Your task to perform on an android device: Search for seafood restaurants on Google Maps Image 0: 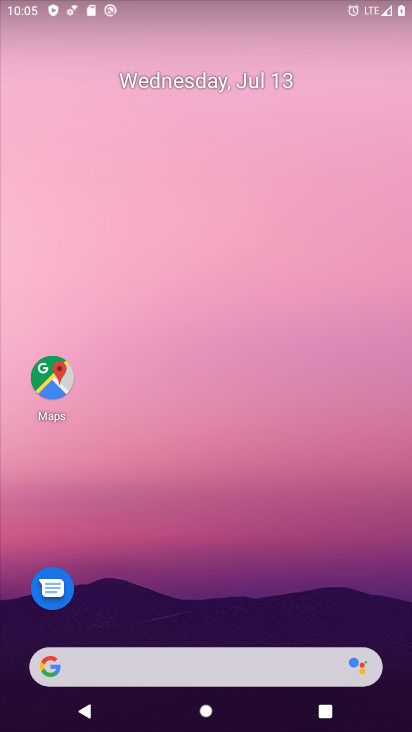
Step 0: drag from (140, 702) to (139, 22)
Your task to perform on an android device: Search for seafood restaurants on Google Maps Image 1: 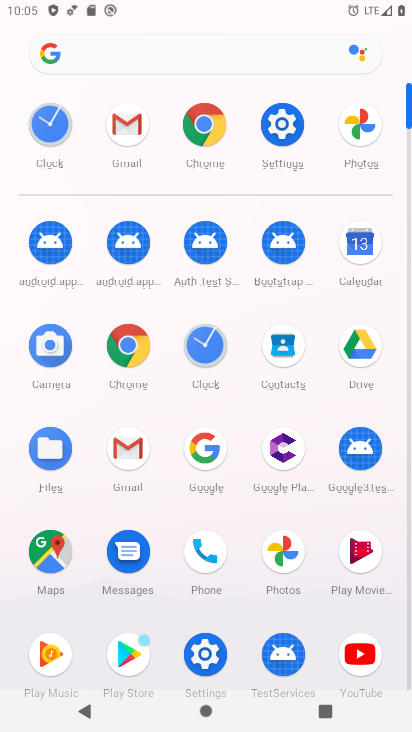
Step 1: click (52, 556)
Your task to perform on an android device: Search for seafood restaurants on Google Maps Image 2: 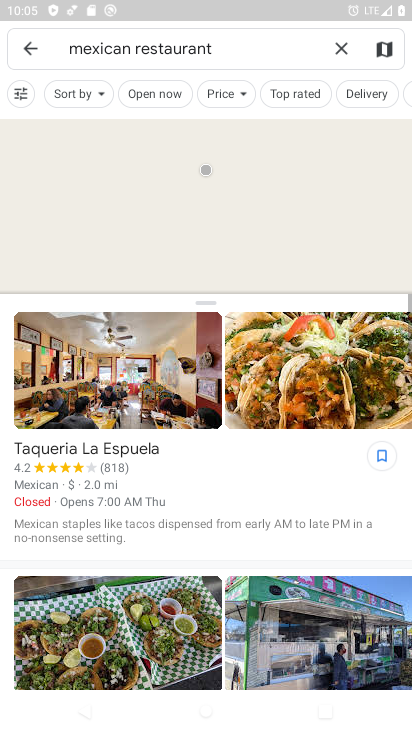
Step 2: click (345, 48)
Your task to perform on an android device: Search for seafood restaurants on Google Maps Image 3: 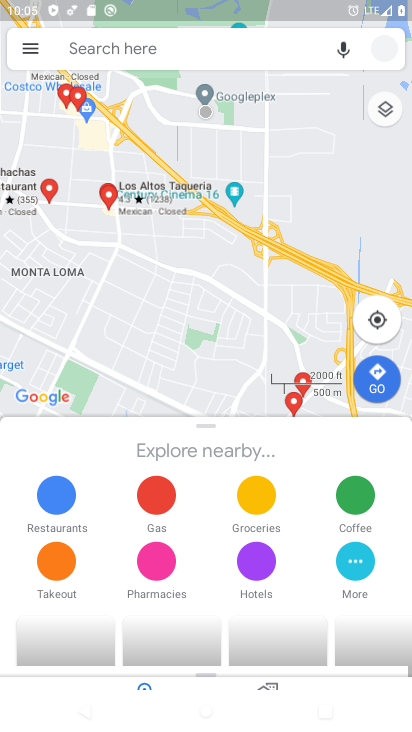
Step 3: click (265, 51)
Your task to perform on an android device: Search for seafood restaurants on Google Maps Image 4: 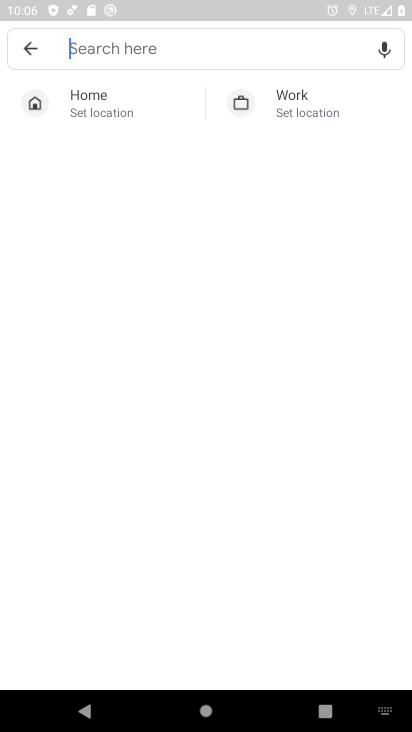
Step 4: type "seafood restaurant"
Your task to perform on an android device: Search for seafood restaurants on Google Maps Image 5: 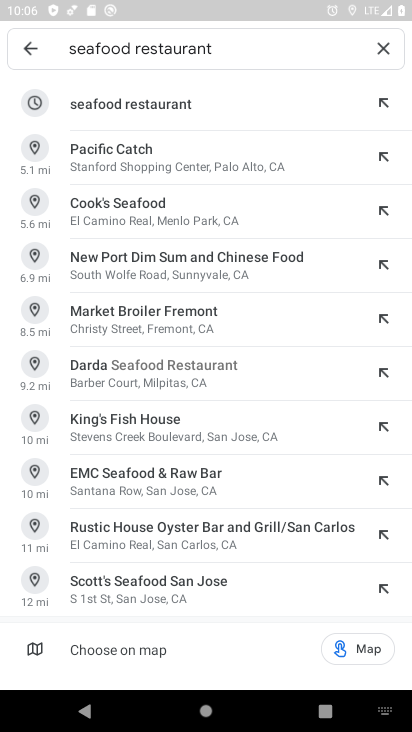
Step 5: click (230, 120)
Your task to perform on an android device: Search for seafood restaurants on Google Maps Image 6: 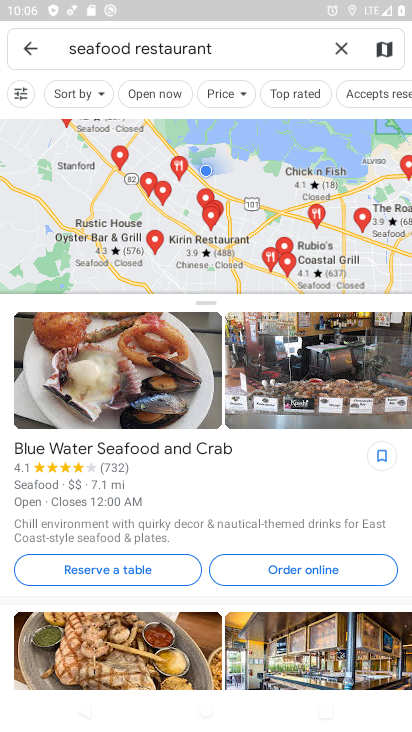
Step 6: task complete